Your task to perform on an android device: Open Reddit.com Image 0: 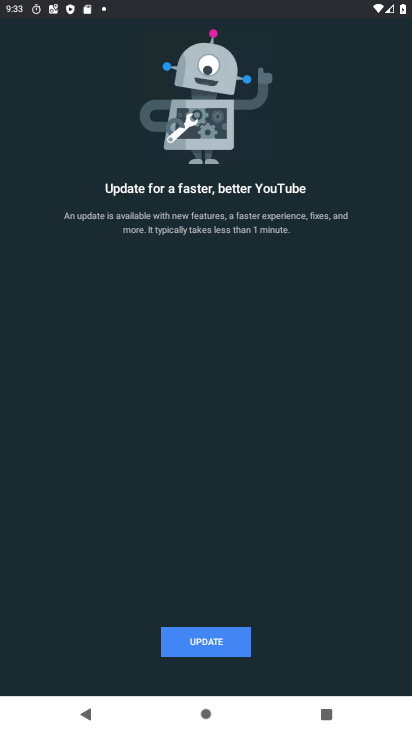
Step 0: press home button
Your task to perform on an android device: Open Reddit.com Image 1: 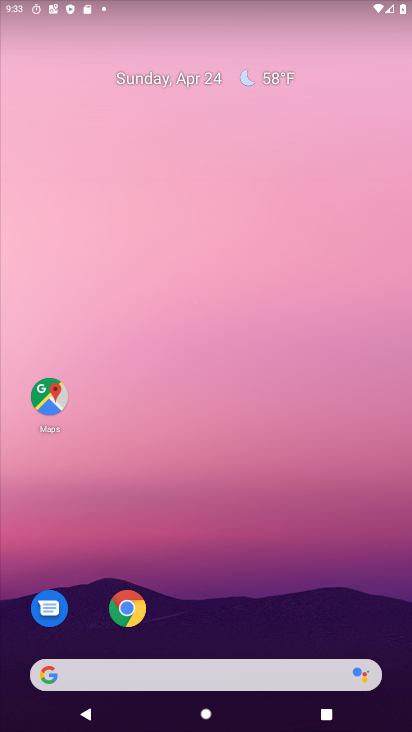
Step 1: drag from (372, 599) to (371, 57)
Your task to perform on an android device: Open Reddit.com Image 2: 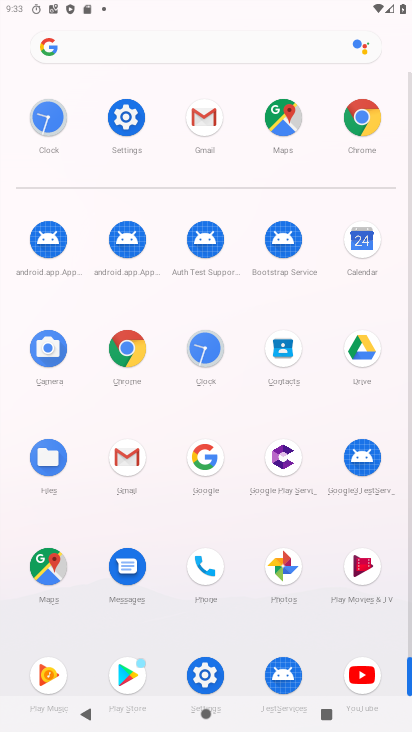
Step 2: click (359, 132)
Your task to perform on an android device: Open Reddit.com Image 3: 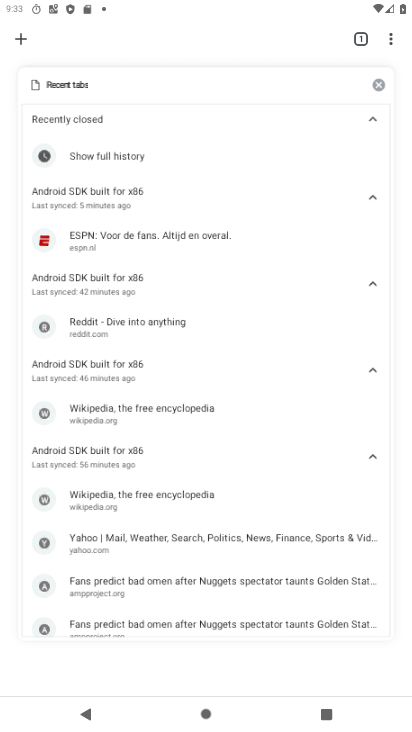
Step 3: press back button
Your task to perform on an android device: Open Reddit.com Image 4: 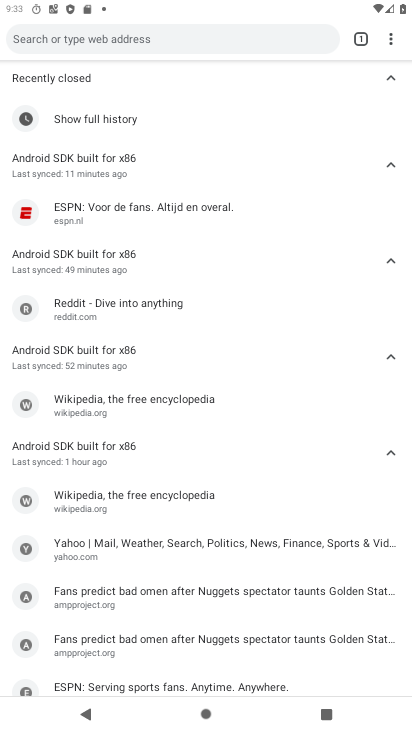
Step 4: press back button
Your task to perform on an android device: Open Reddit.com Image 5: 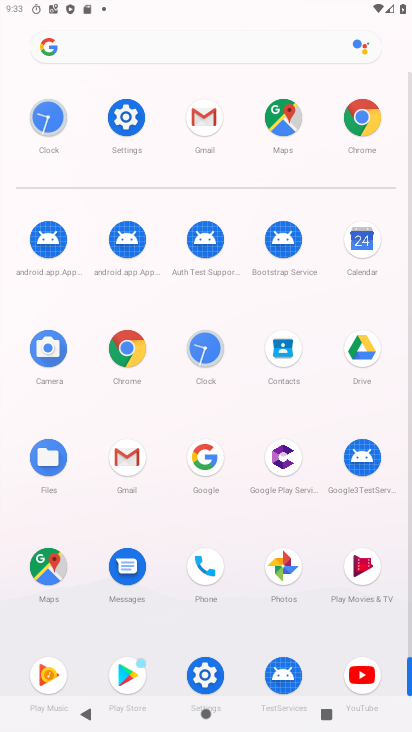
Step 5: click (360, 116)
Your task to perform on an android device: Open Reddit.com Image 6: 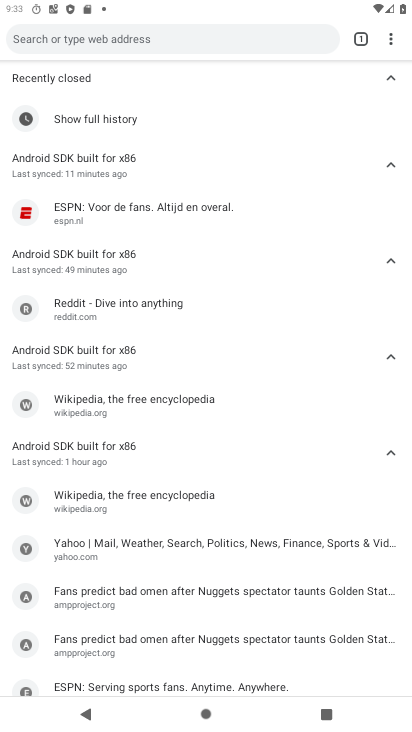
Step 6: click (176, 38)
Your task to perform on an android device: Open Reddit.com Image 7: 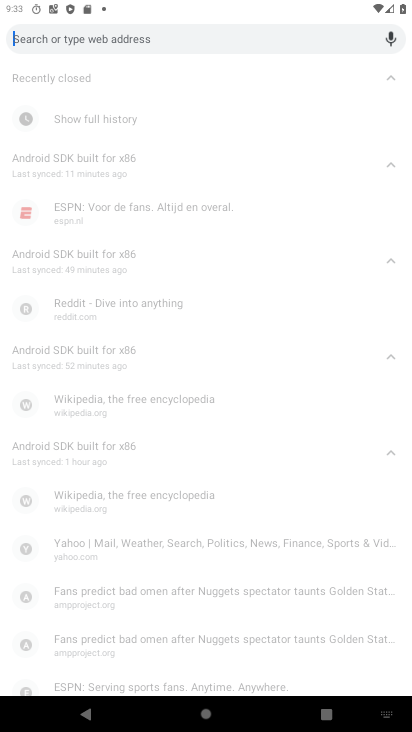
Step 7: type "reddit.com"
Your task to perform on an android device: Open Reddit.com Image 8: 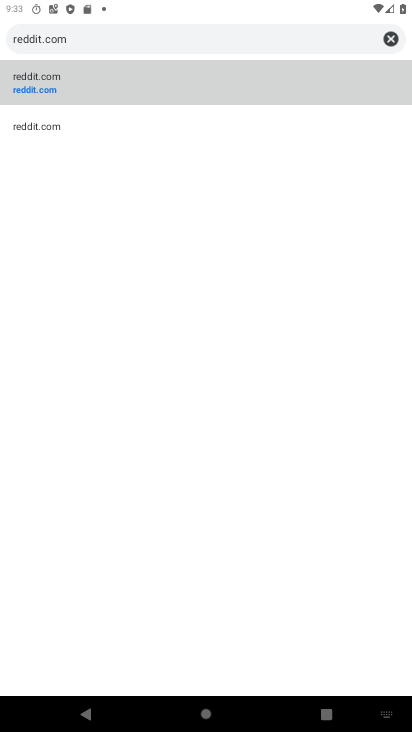
Step 8: click (140, 77)
Your task to perform on an android device: Open Reddit.com Image 9: 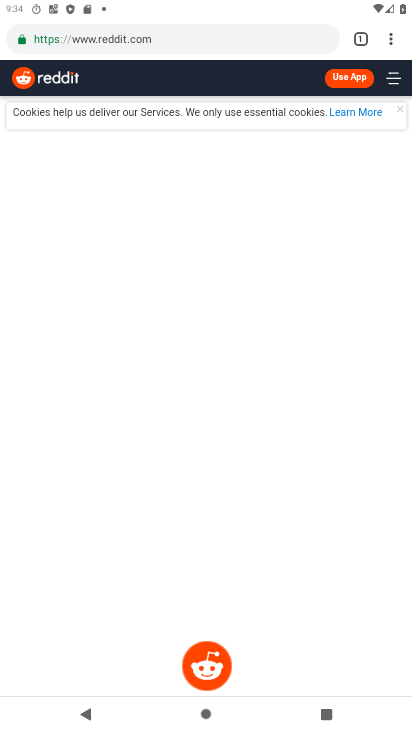
Step 9: task complete